Your task to perform on an android device: open app "Viber Messenger" (install if not already installed) and go to login screen Image 0: 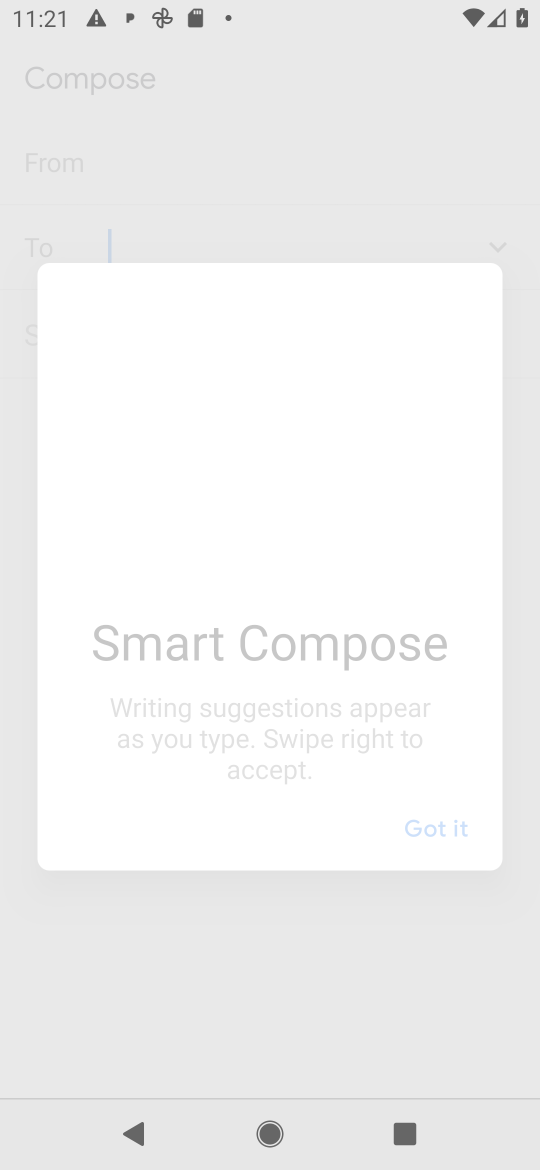
Step 0: press home button
Your task to perform on an android device: open app "Viber Messenger" (install if not already installed) and go to login screen Image 1: 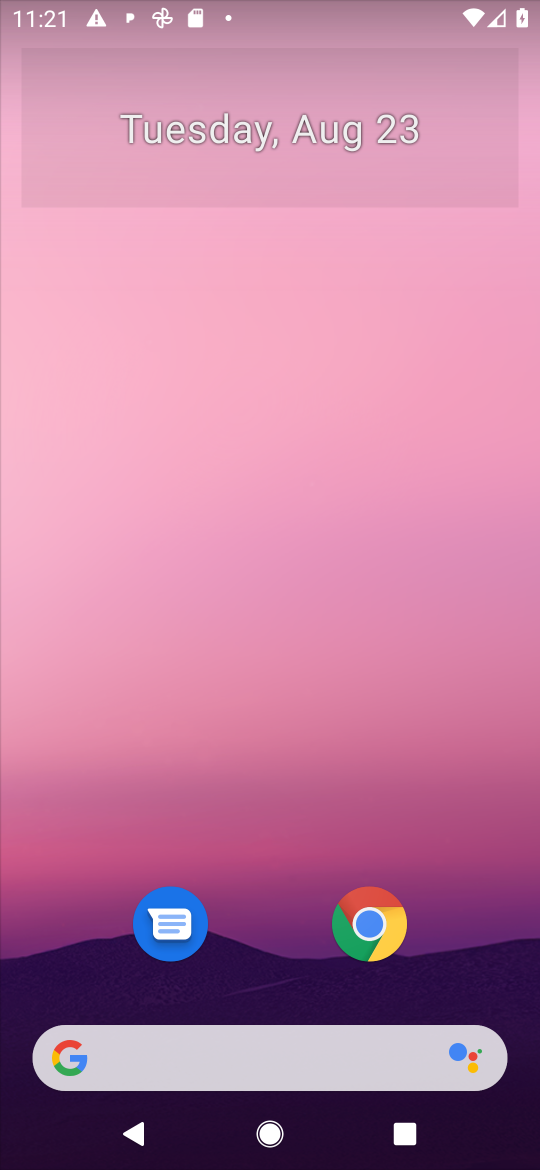
Step 1: drag from (463, 803) to (492, 70)
Your task to perform on an android device: open app "Viber Messenger" (install if not already installed) and go to login screen Image 2: 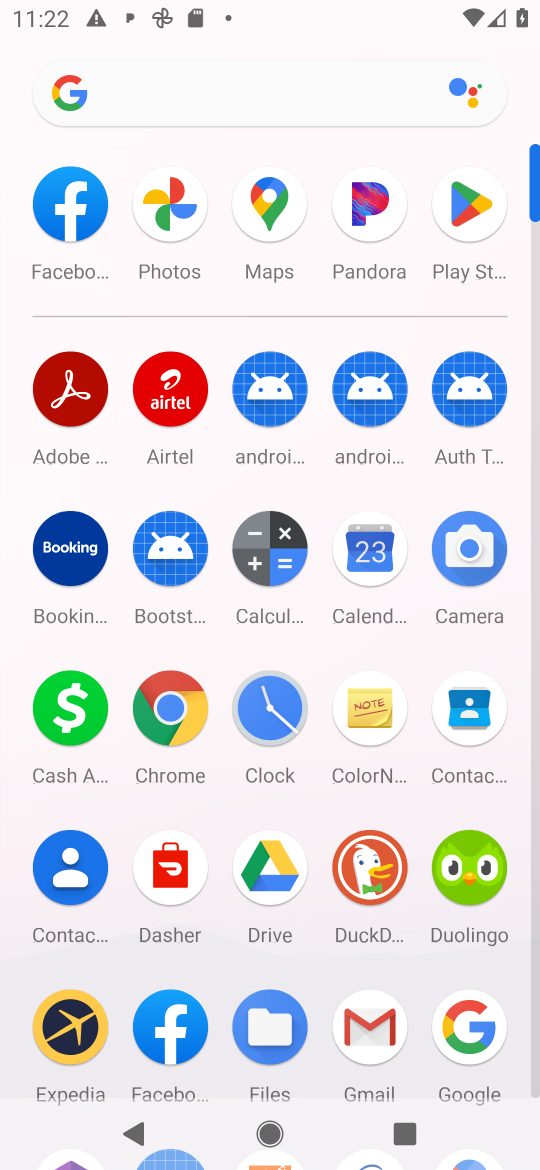
Step 2: click (473, 199)
Your task to perform on an android device: open app "Viber Messenger" (install if not already installed) and go to login screen Image 3: 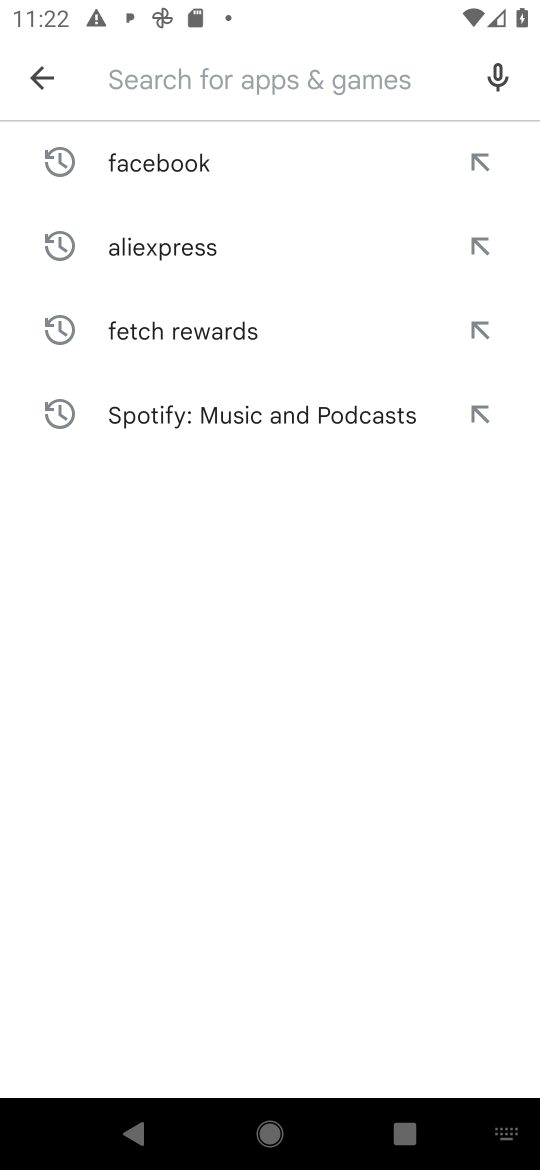
Step 3: type "Viber Messenger"
Your task to perform on an android device: open app "Viber Messenger" (install if not already installed) and go to login screen Image 4: 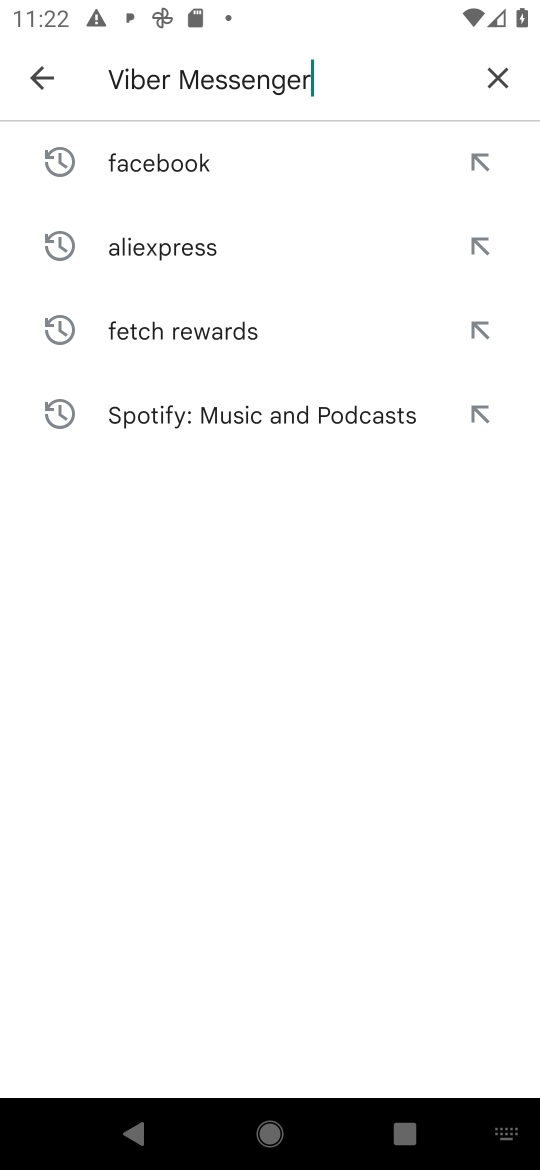
Step 4: press enter
Your task to perform on an android device: open app "Viber Messenger" (install if not already installed) and go to login screen Image 5: 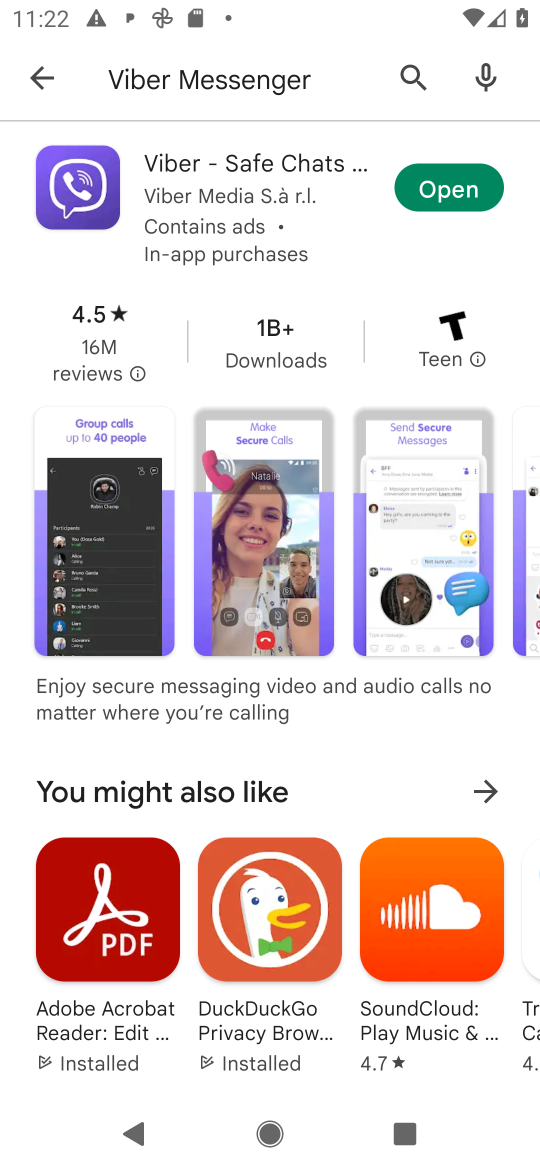
Step 5: click (443, 192)
Your task to perform on an android device: open app "Viber Messenger" (install if not already installed) and go to login screen Image 6: 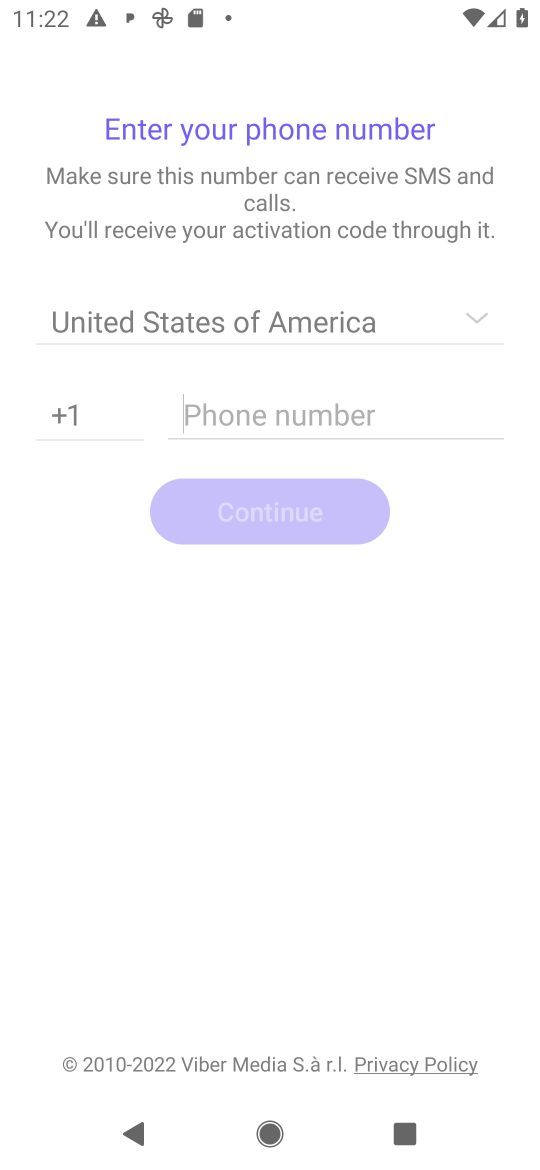
Step 6: task complete